Your task to perform on an android device: Go to network settings Image 0: 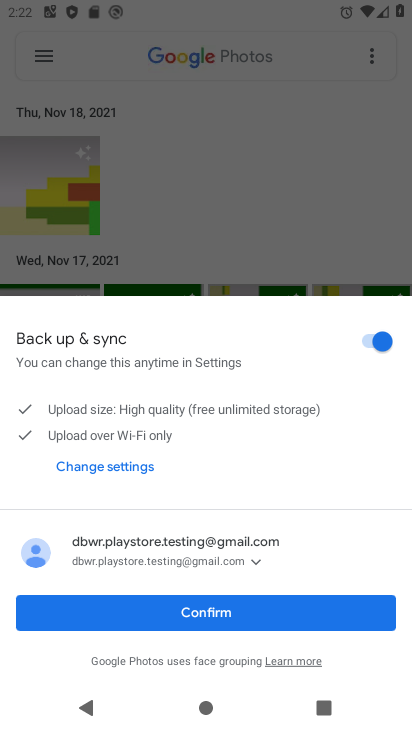
Step 0: press home button
Your task to perform on an android device: Go to network settings Image 1: 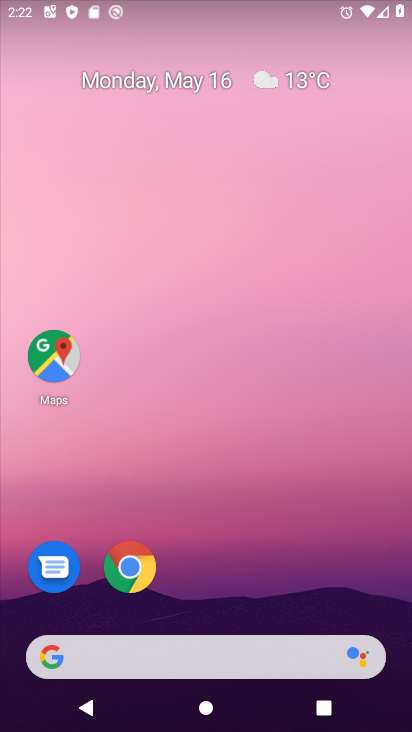
Step 1: drag from (184, 568) to (223, 41)
Your task to perform on an android device: Go to network settings Image 2: 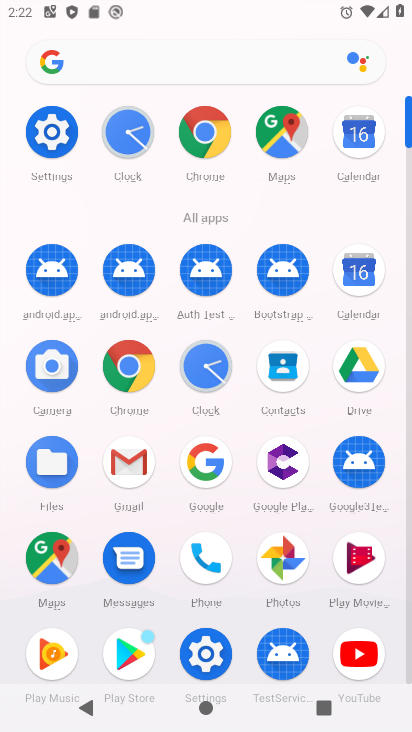
Step 2: click (71, 139)
Your task to perform on an android device: Go to network settings Image 3: 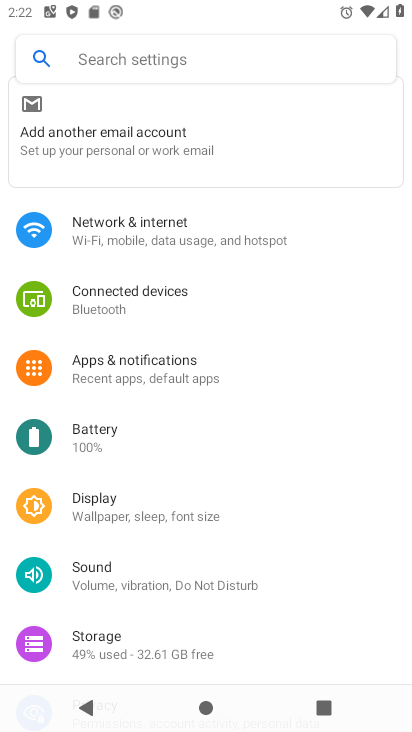
Step 3: drag from (239, 634) to (235, 543)
Your task to perform on an android device: Go to network settings Image 4: 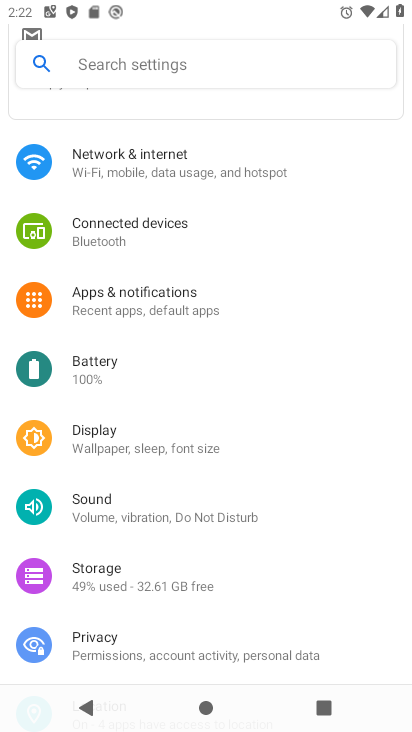
Step 4: click (171, 171)
Your task to perform on an android device: Go to network settings Image 5: 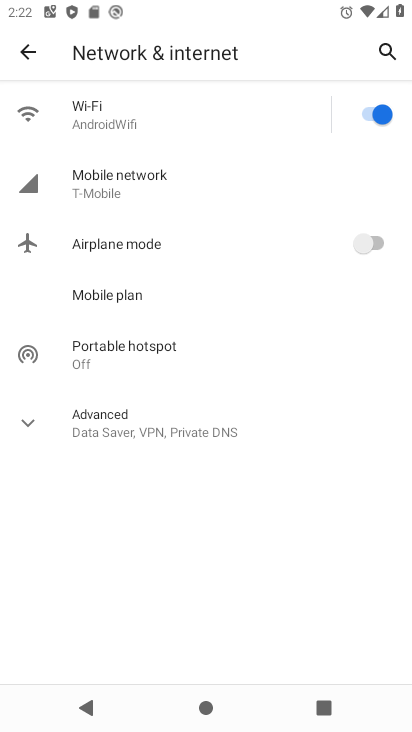
Step 5: task complete